Your task to perform on an android device: Open calendar and show me the second week of next month Image 0: 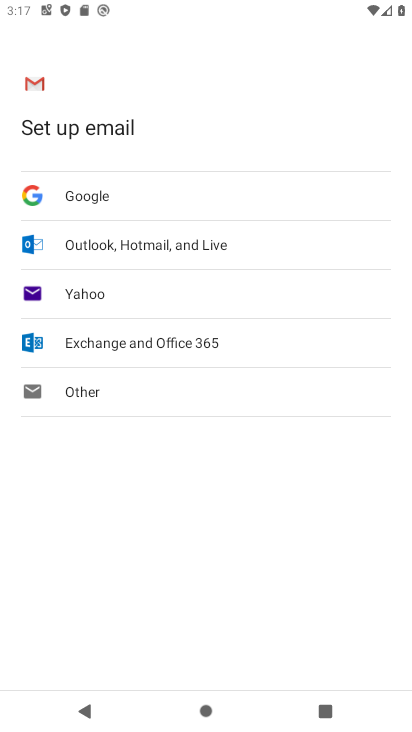
Step 0: press home button
Your task to perform on an android device: Open calendar and show me the second week of next month Image 1: 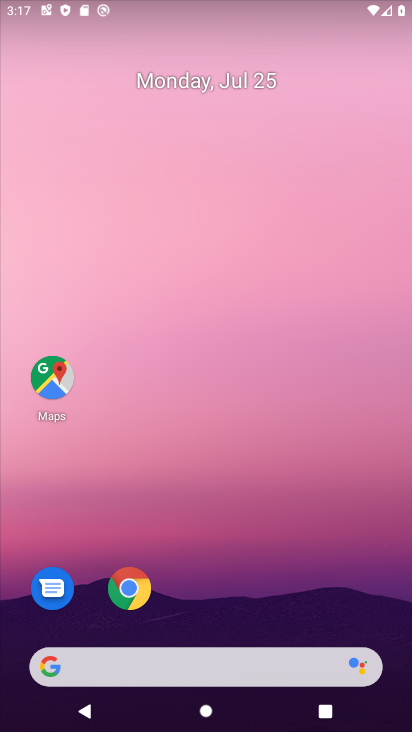
Step 1: drag from (304, 555) to (268, 117)
Your task to perform on an android device: Open calendar and show me the second week of next month Image 2: 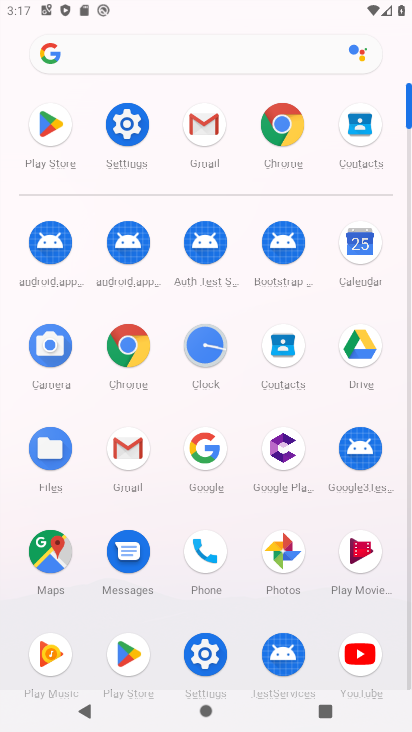
Step 2: click (372, 244)
Your task to perform on an android device: Open calendar and show me the second week of next month Image 3: 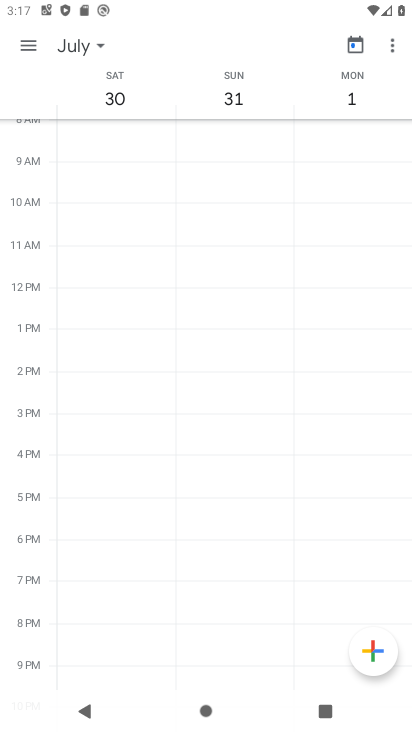
Step 3: click (403, 42)
Your task to perform on an android device: Open calendar and show me the second week of next month Image 4: 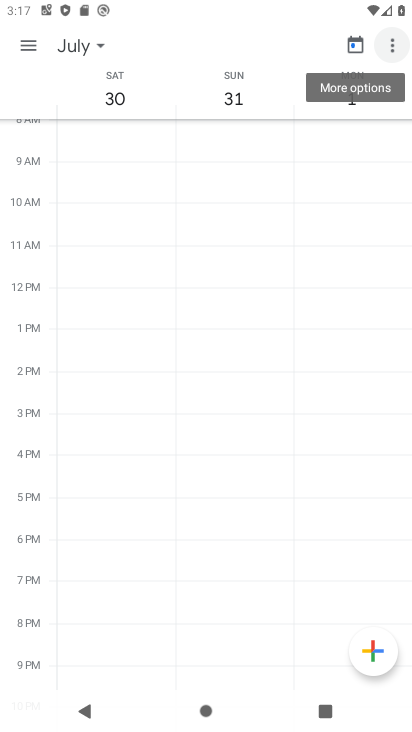
Step 4: click (395, 45)
Your task to perform on an android device: Open calendar and show me the second week of next month Image 5: 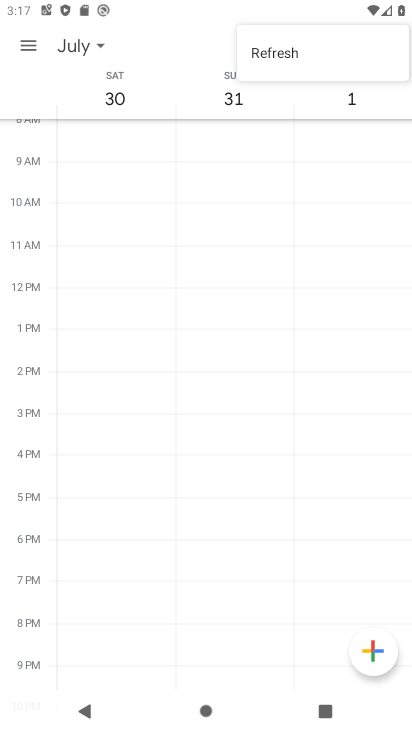
Step 5: click (145, 301)
Your task to perform on an android device: Open calendar and show me the second week of next month Image 6: 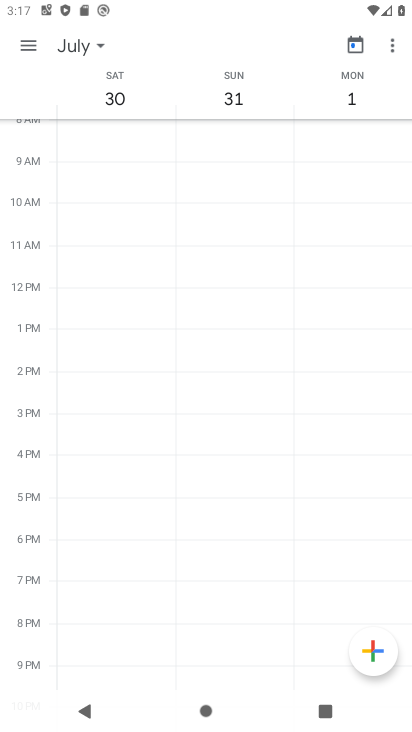
Step 6: click (69, 45)
Your task to perform on an android device: Open calendar and show me the second week of next month Image 7: 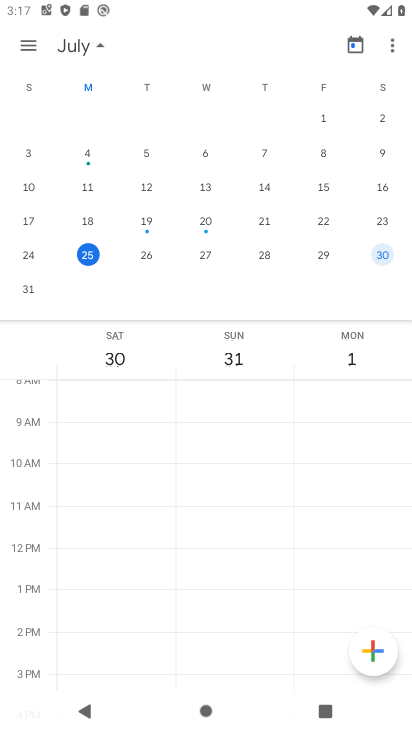
Step 7: drag from (369, 200) to (85, 185)
Your task to perform on an android device: Open calendar and show me the second week of next month Image 8: 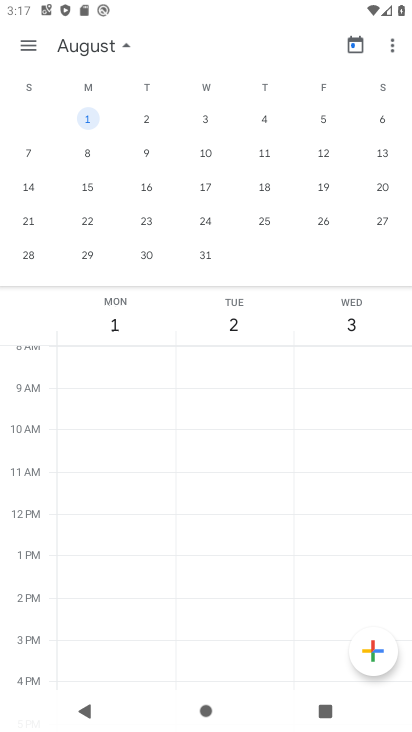
Step 8: click (32, 52)
Your task to perform on an android device: Open calendar and show me the second week of next month Image 9: 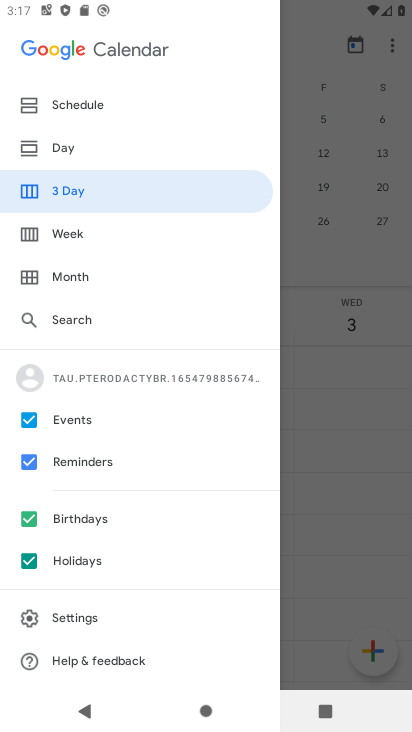
Step 9: click (76, 230)
Your task to perform on an android device: Open calendar and show me the second week of next month Image 10: 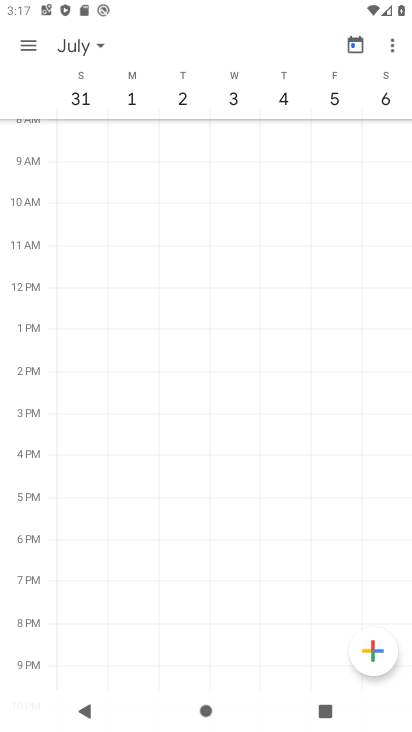
Step 10: click (110, 49)
Your task to perform on an android device: Open calendar and show me the second week of next month Image 11: 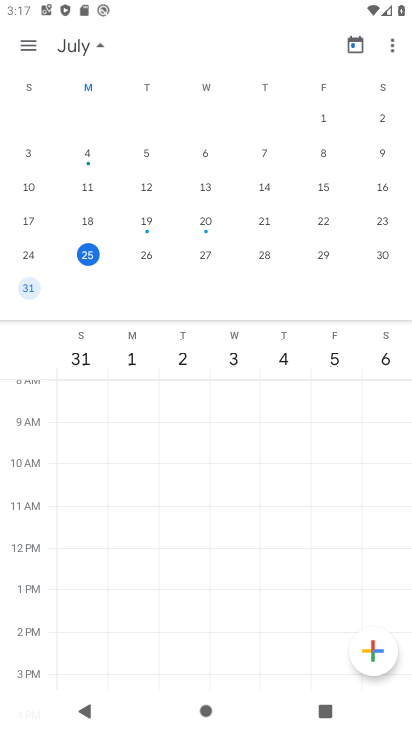
Step 11: drag from (396, 205) to (42, 202)
Your task to perform on an android device: Open calendar and show me the second week of next month Image 12: 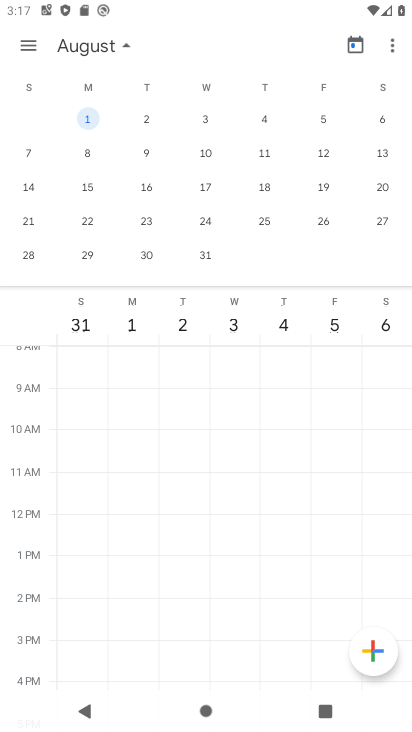
Step 12: click (99, 149)
Your task to perform on an android device: Open calendar and show me the second week of next month Image 13: 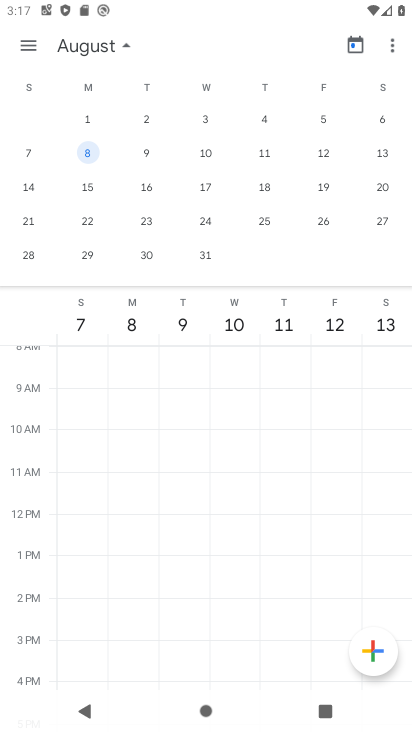
Step 13: task complete